Your task to perform on an android device: Go to Google maps Image 0: 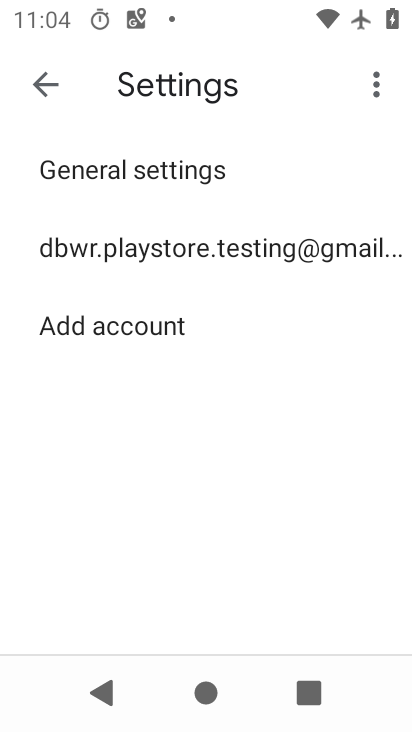
Step 0: press home button
Your task to perform on an android device: Go to Google maps Image 1: 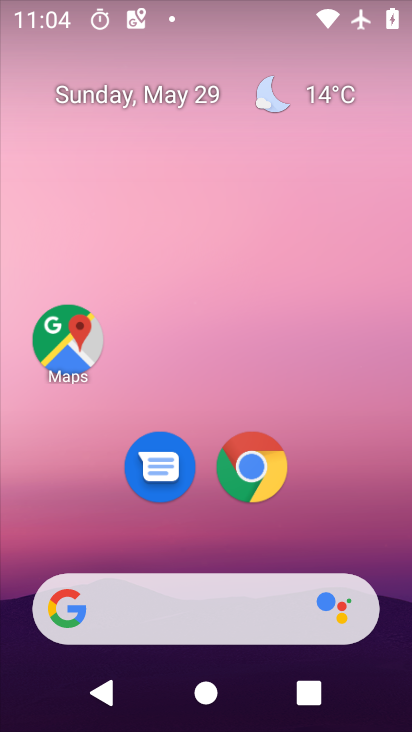
Step 1: click (84, 323)
Your task to perform on an android device: Go to Google maps Image 2: 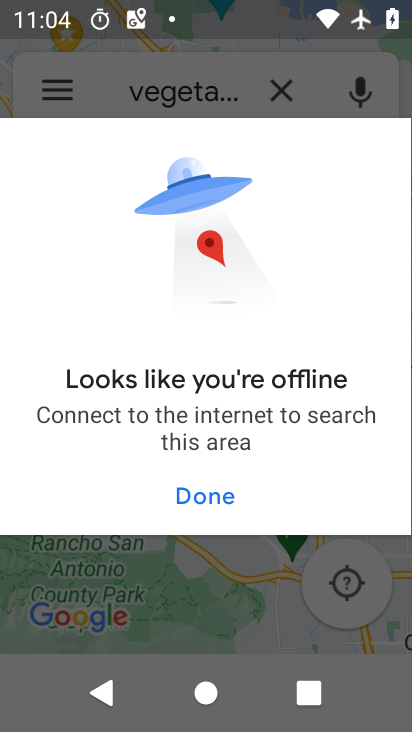
Step 2: task complete